Your task to perform on an android device: Show the shopping cart on ebay. Image 0: 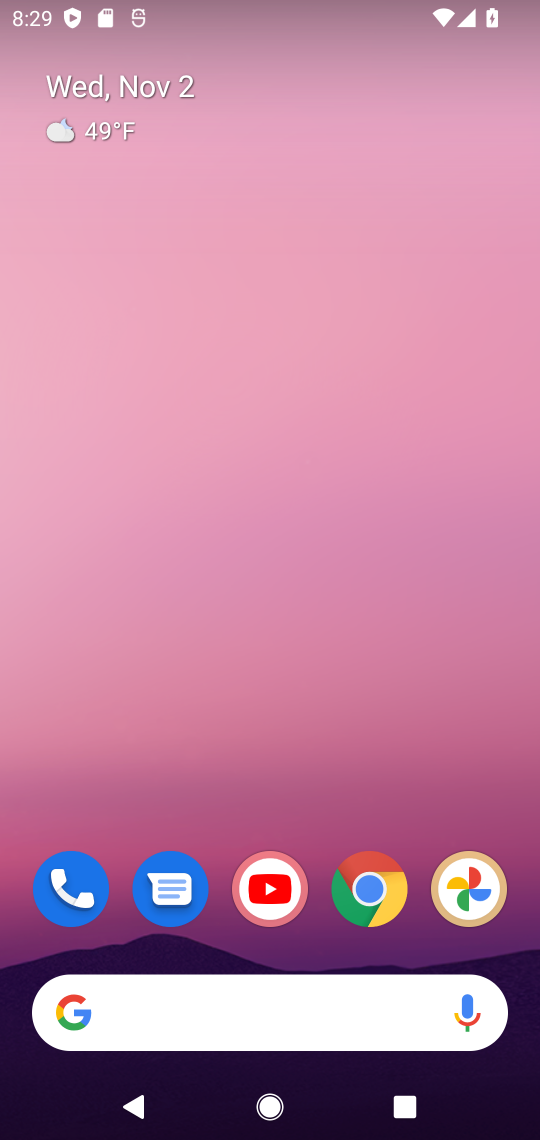
Step 0: press home button
Your task to perform on an android device: Show the shopping cart on ebay. Image 1: 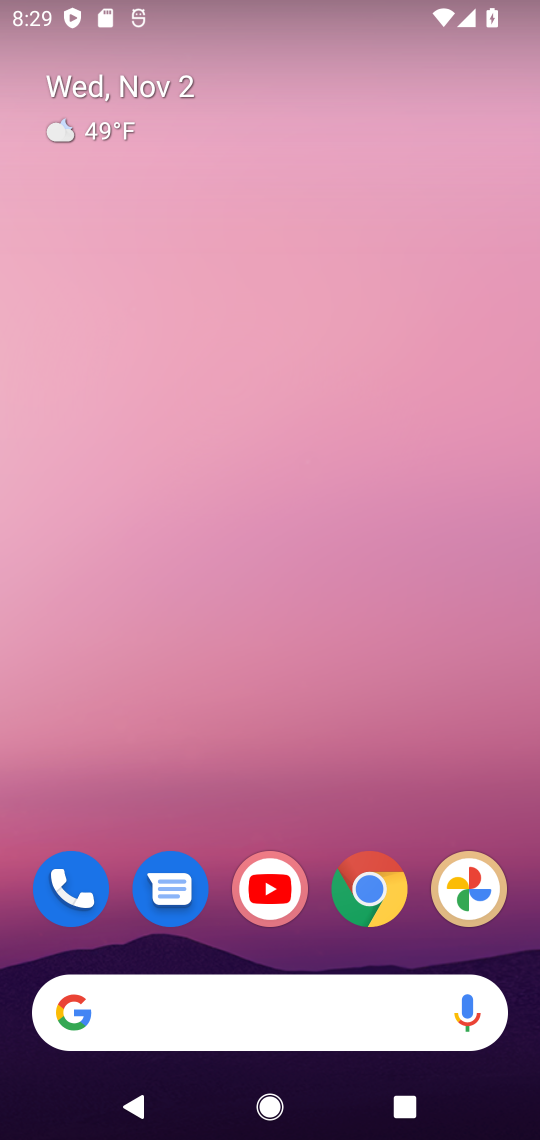
Step 1: drag from (301, 808) to (322, 10)
Your task to perform on an android device: Show the shopping cart on ebay. Image 2: 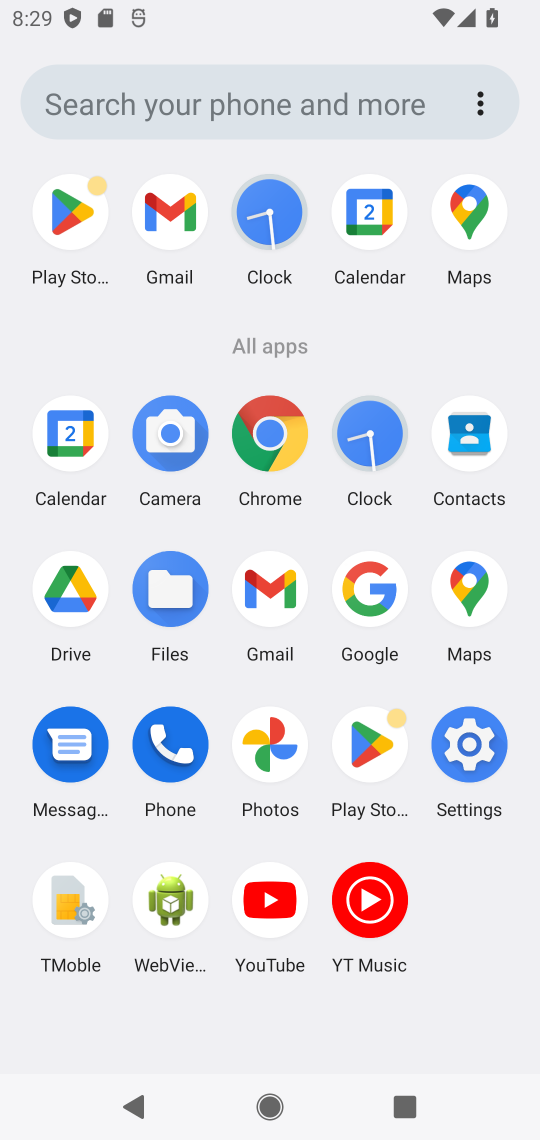
Step 2: click (262, 422)
Your task to perform on an android device: Show the shopping cart on ebay. Image 3: 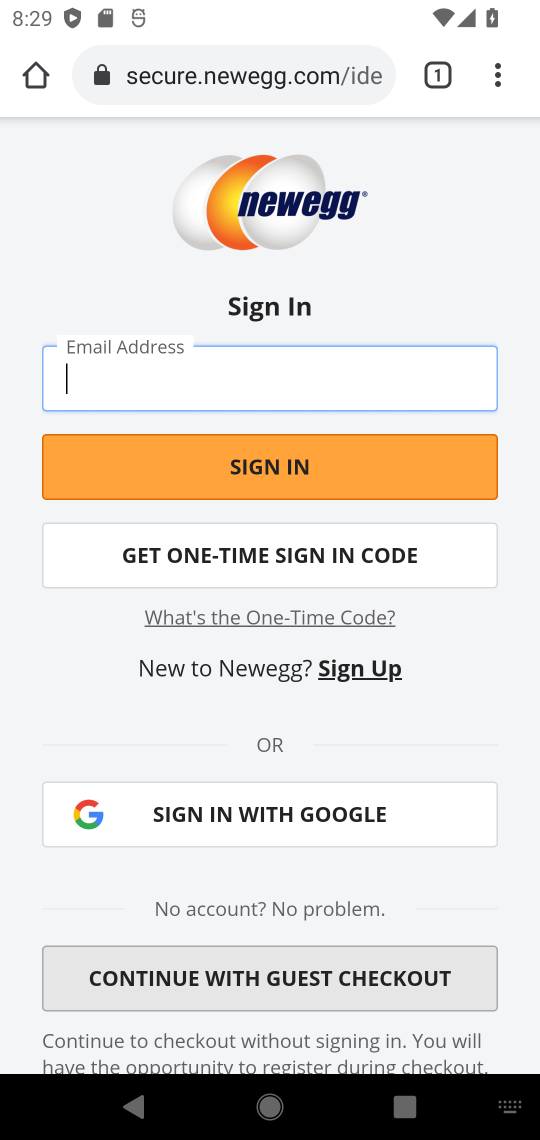
Step 3: click (200, 72)
Your task to perform on an android device: Show the shopping cart on ebay. Image 4: 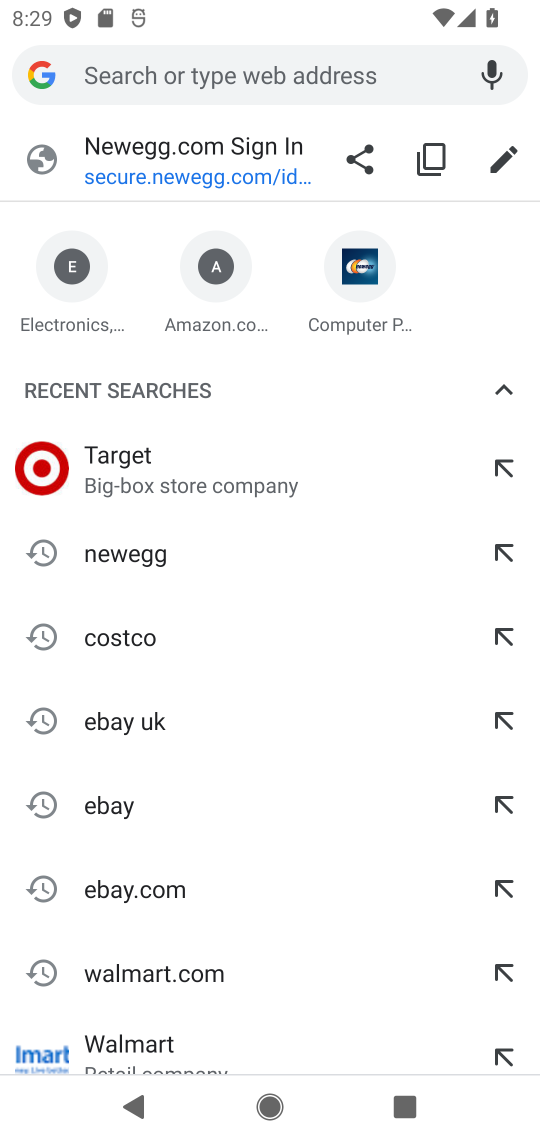
Step 4: type "ebay"
Your task to perform on an android device: Show the shopping cart on ebay. Image 5: 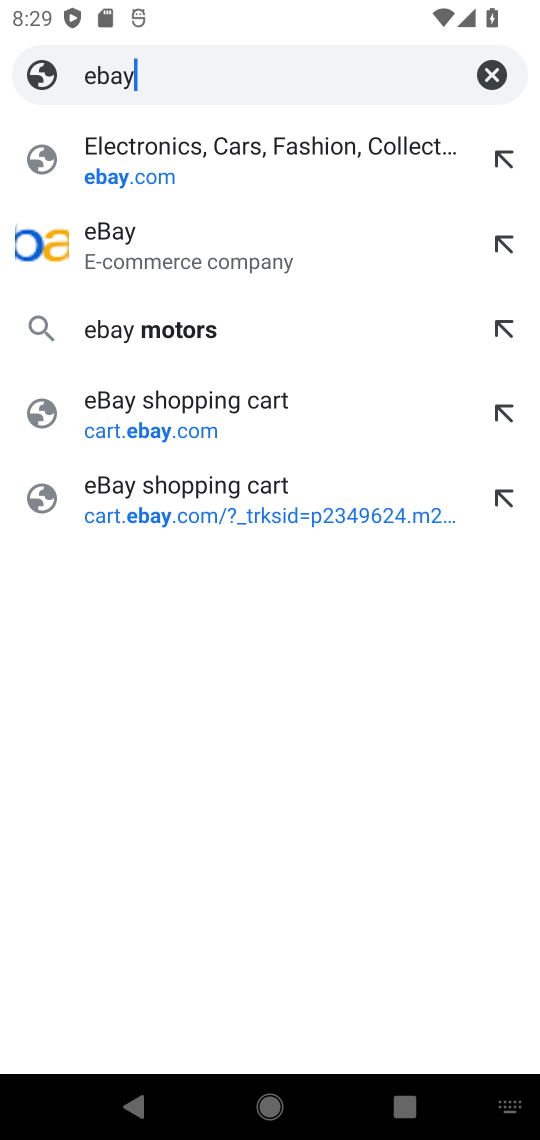
Step 5: click (151, 164)
Your task to perform on an android device: Show the shopping cart on ebay. Image 6: 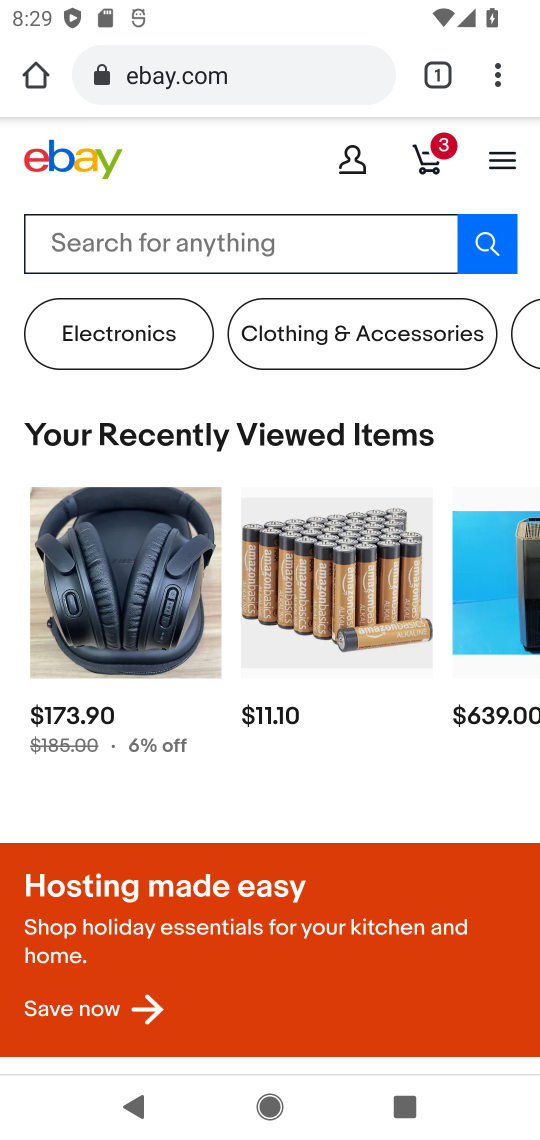
Step 6: click (147, 238)
Your task to perform on an android device: Show the shopping cart on ebay. Image 7: 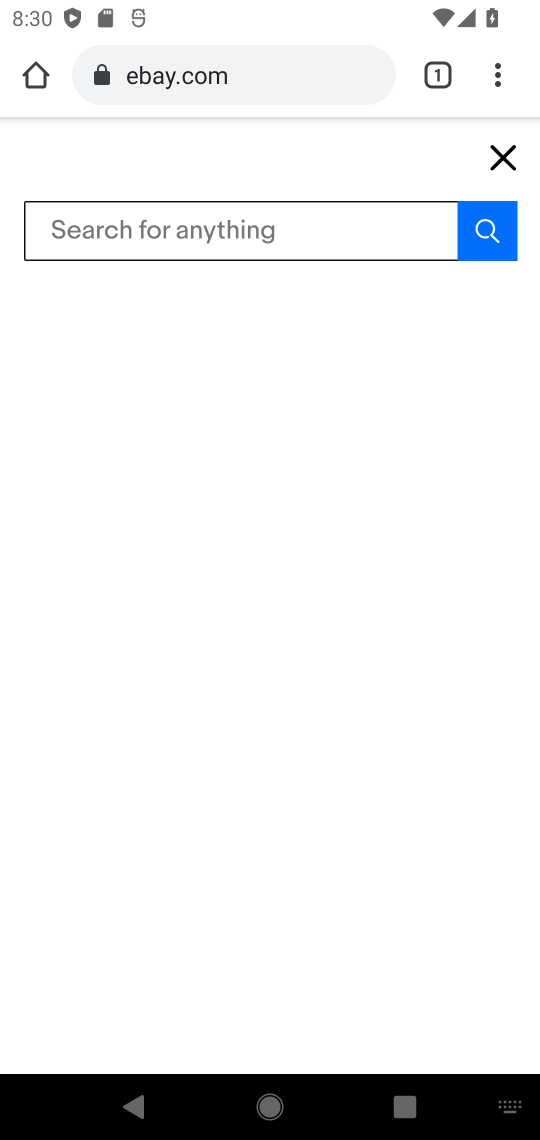
Step 7: click (502, 149)
Your task to perform on an android device: Show the shopping cart on ebay. Image 8: 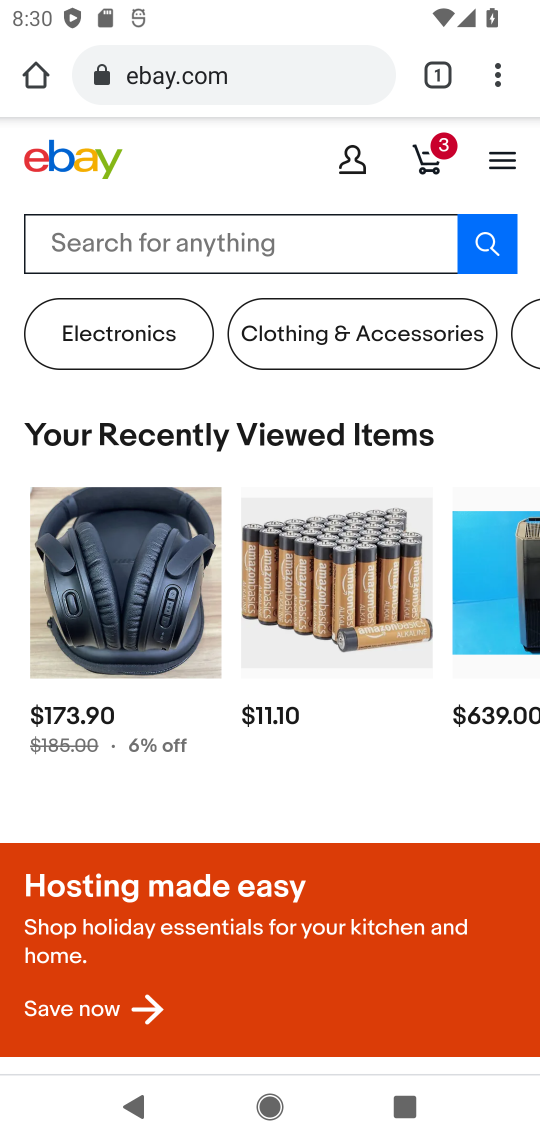
Step 8: click (442, 154)
Your task to perform on an android device: Show the shopping cart on ebay. Image 9: 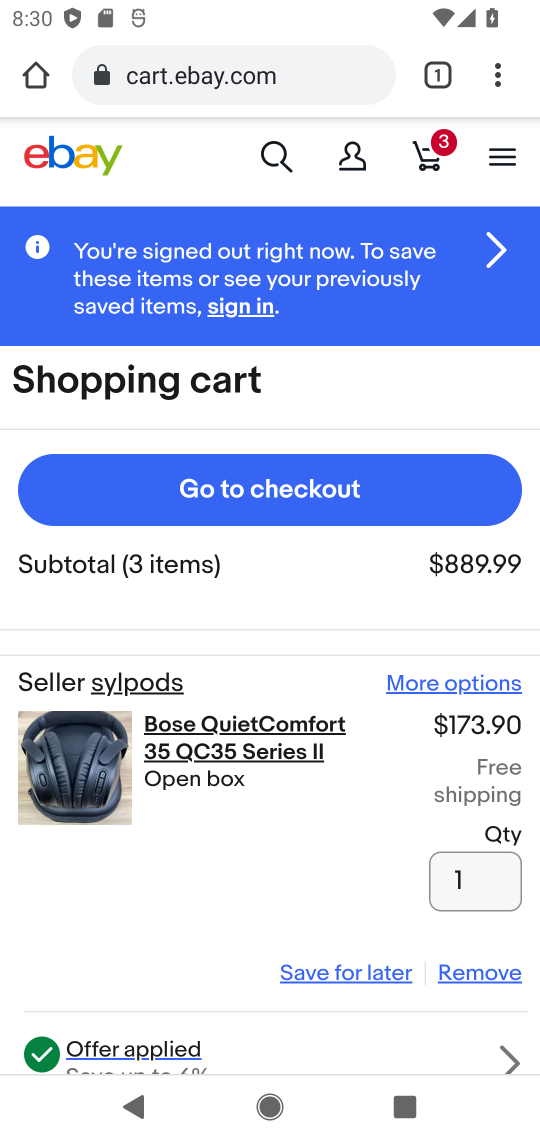
Step 9: task complete